Your task to perform on an android device: Open the map Image 0: 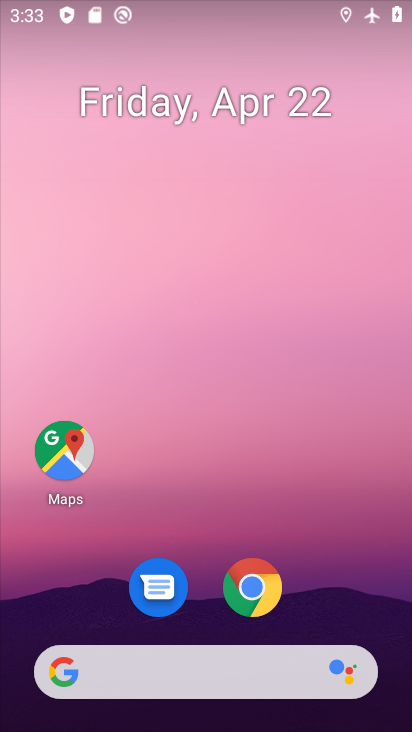
Step 0: click (63, 454)
Your task to perform on an android device: Open the map Image 1: 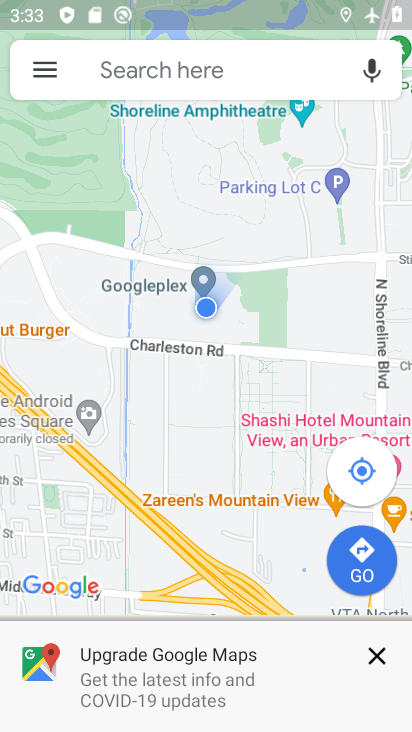
Step 1: task complete